Your task to perform on an android device: allow cookies in the chrome app Image 0: 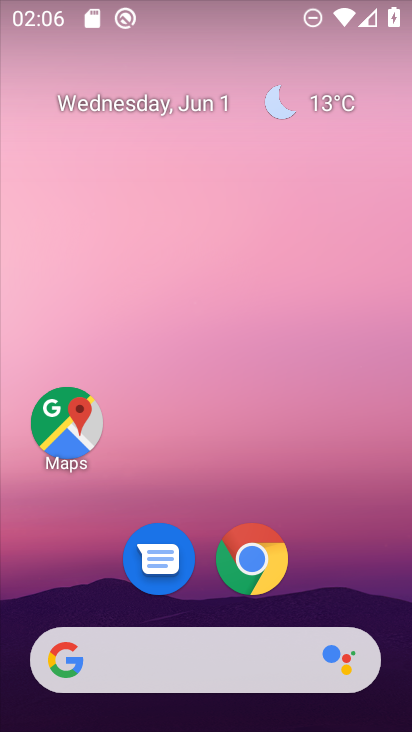
Step 0: click (250, 557)
Your task to perform on an android device: allow cookies in the chrome app Image 1: 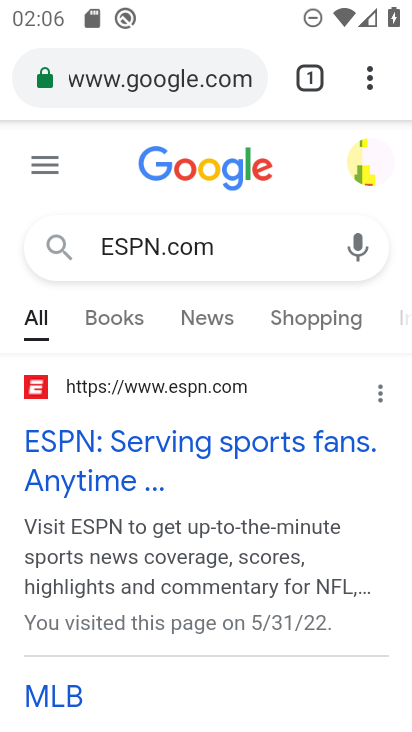
Step 1: click (363, 74)
Your task to perform on an android device: allow cookies in the chrome app Image 2: 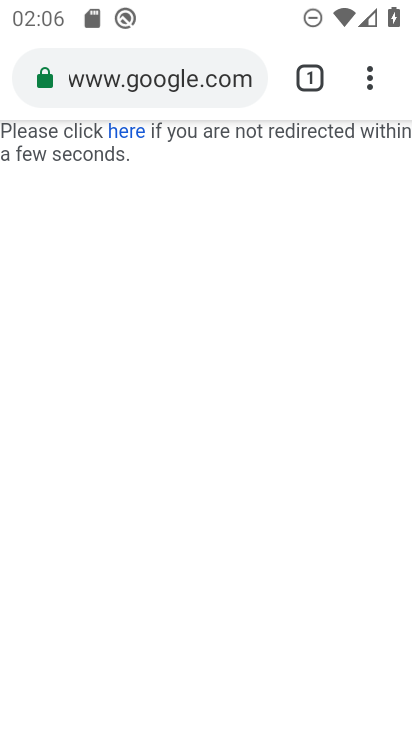
Step 2: click (372, 75)
Your task to perform on an android device: allow cookies in the chrome app Image 3: 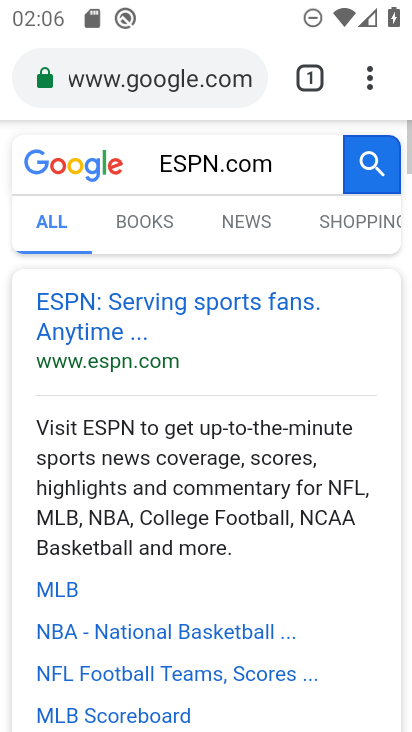
Step 3: click (371, 77)
Your task to perform on an android device: allow cookies in the chrome app Image 4: 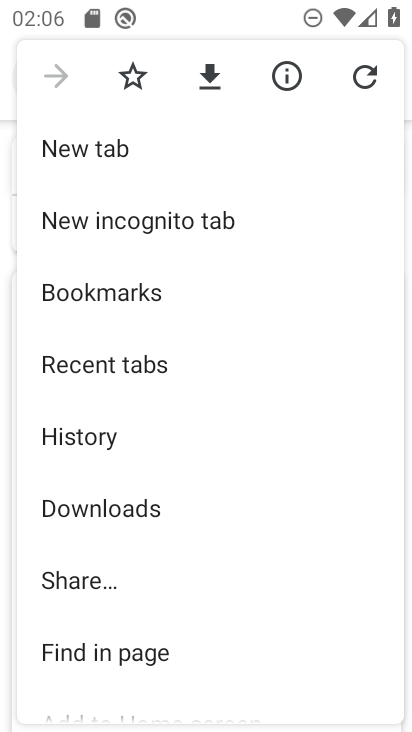
Step 4: drag from (267, 571) to (234, 323)
Your task to perform on an android device: allow cookies in the chrome app Image 5: 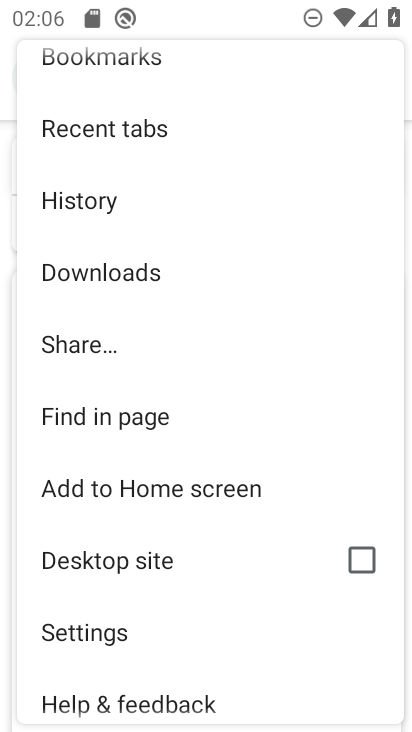
Step 5: click (92, 622)
Your task to perform on an android device: allow cookies in the chrome app Image 6: 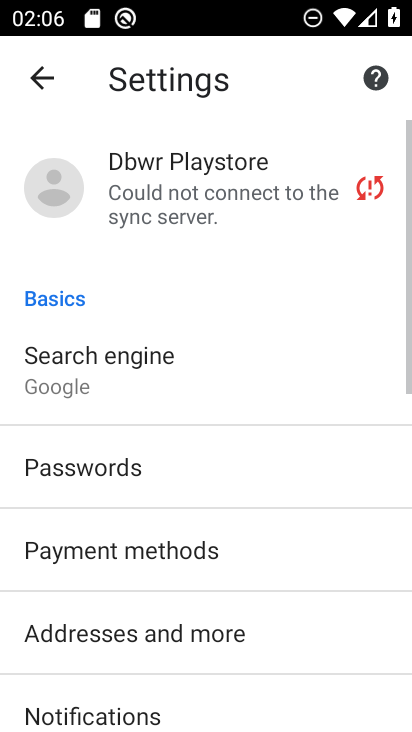
Step 6: drag from (271, 681) to (242, 322)
Your task to perform on an android device: allow cookies in the chrome app Image 7: 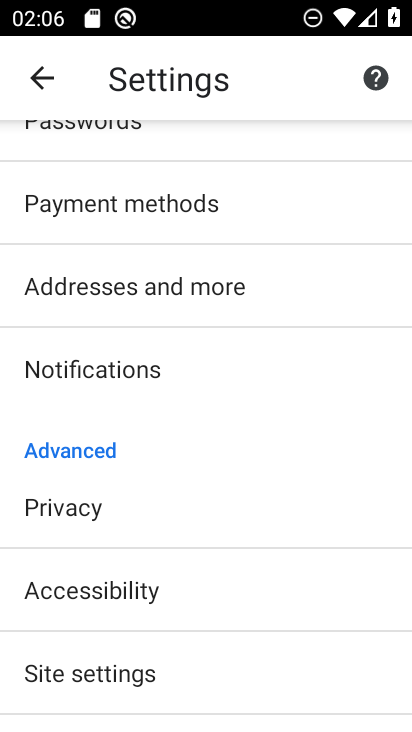
Step 7: click (88, 667)
Your task to perform on an android device: allow cookies in the chrome app Image 8: 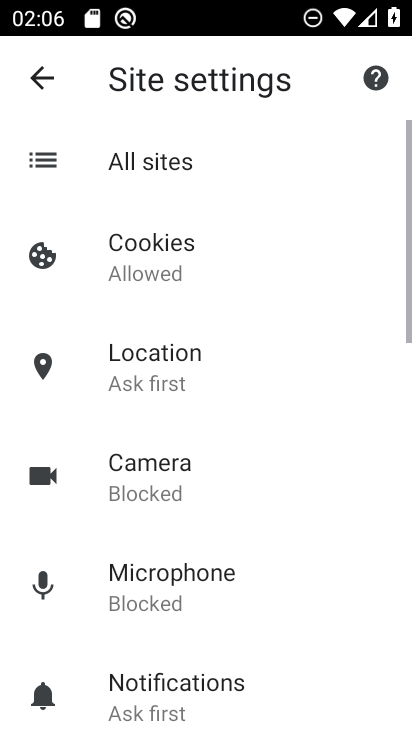
Step 8: click (158, 256)
Your task to perform on an android device: allow cookies in the chrome app Image 9: 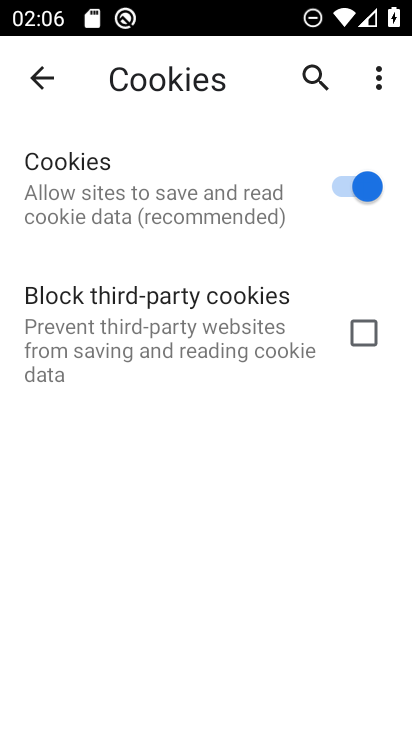
Step 9: task complete